Your task to perform on an android device: Go to Yahoo.com Image 0: 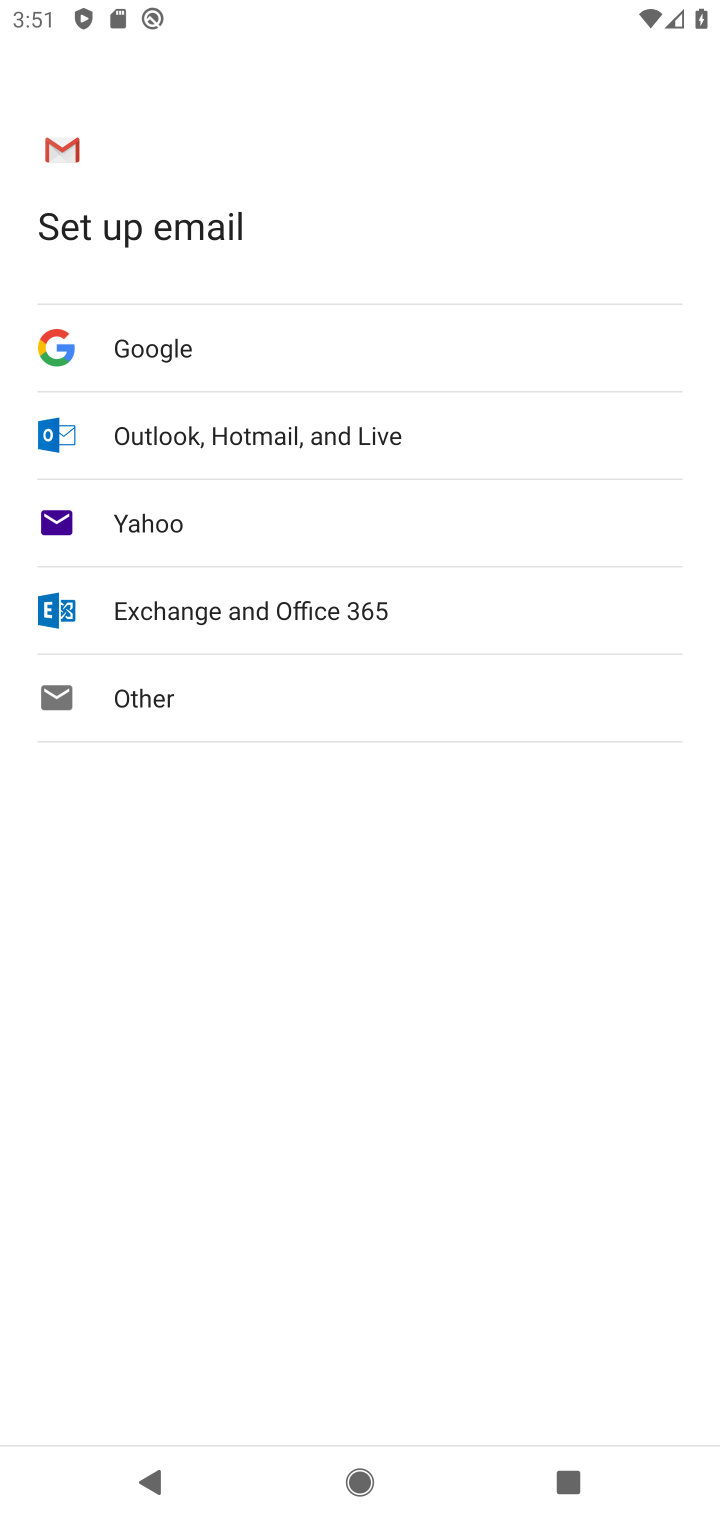
Step 0: press back button
Your task to perform on an android device: Go to Yahoo.com Image 1: 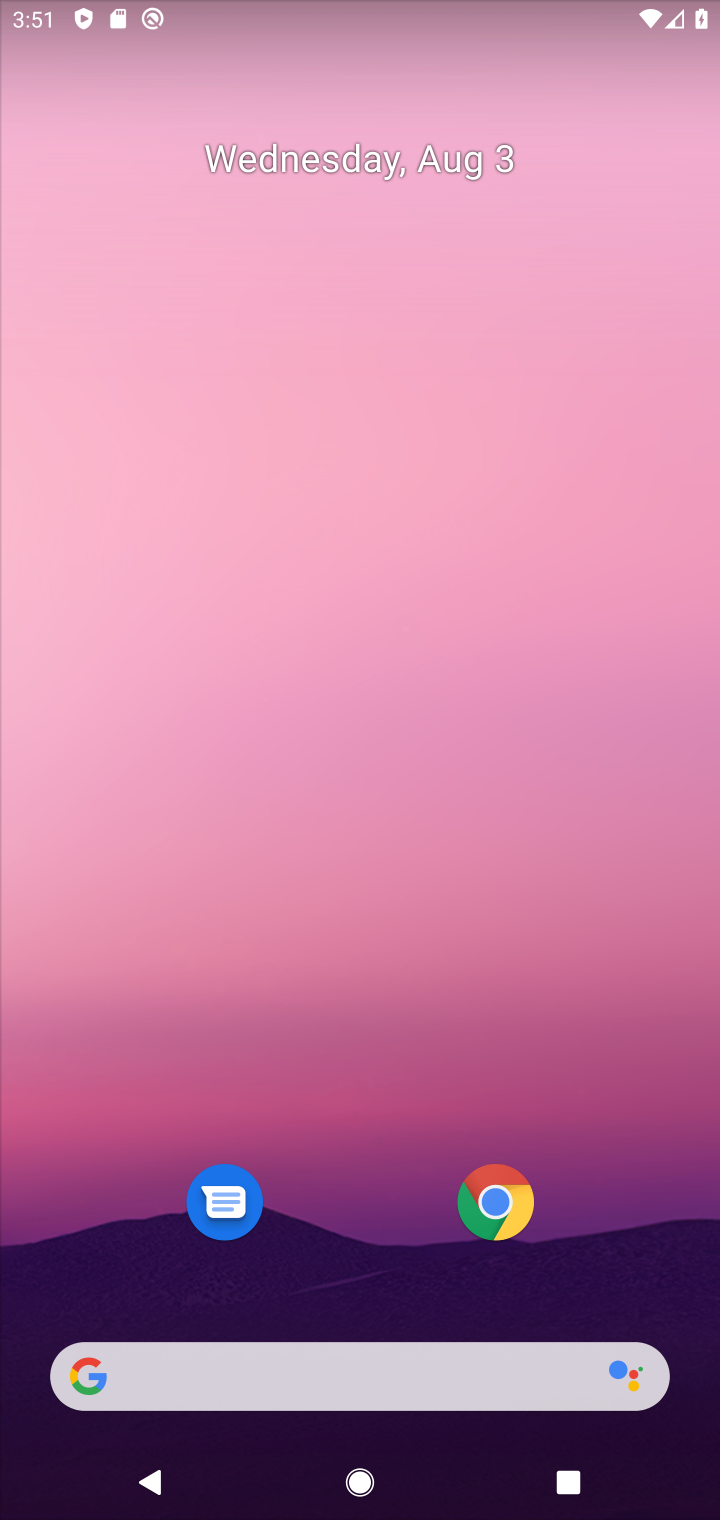
Step 1: click (515, 1192)
Your task to perform on an android device: Go to Yahoo.com Image 2: 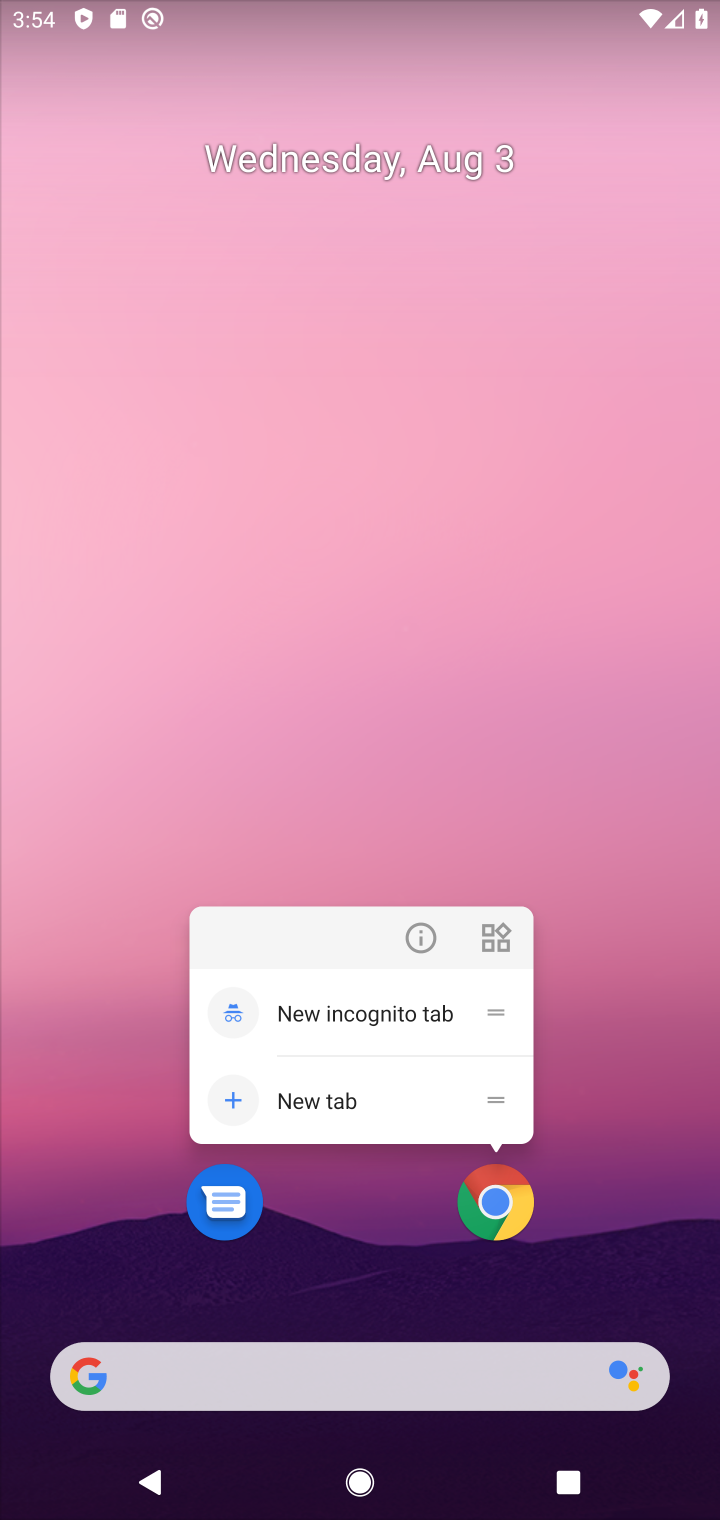
Step 2: click (500, 1199)
Your task to perform on an android device: Go to Yahoo.com Image 3: 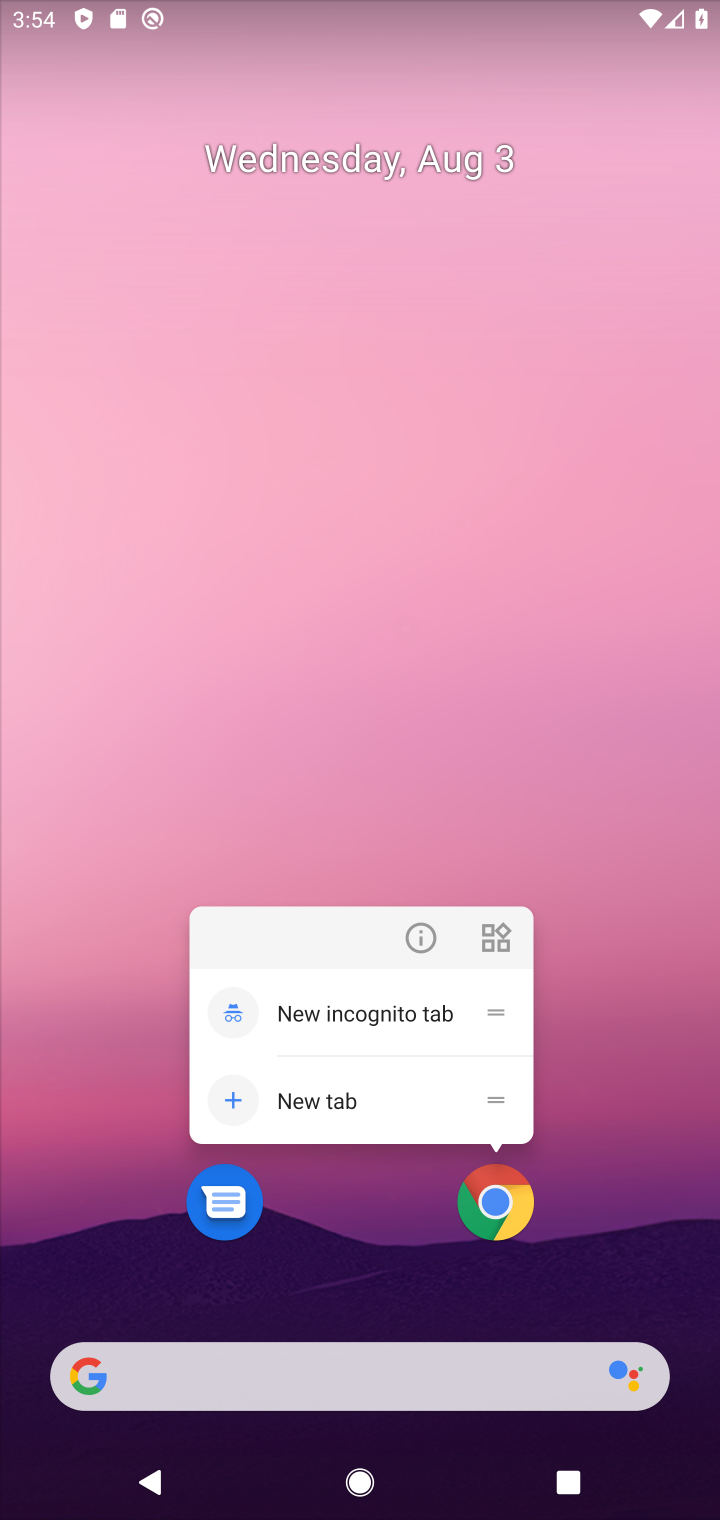
Step 3: click (492, 1204)
Your task to perform on an android device: Go to Yahoo.com Image 4: 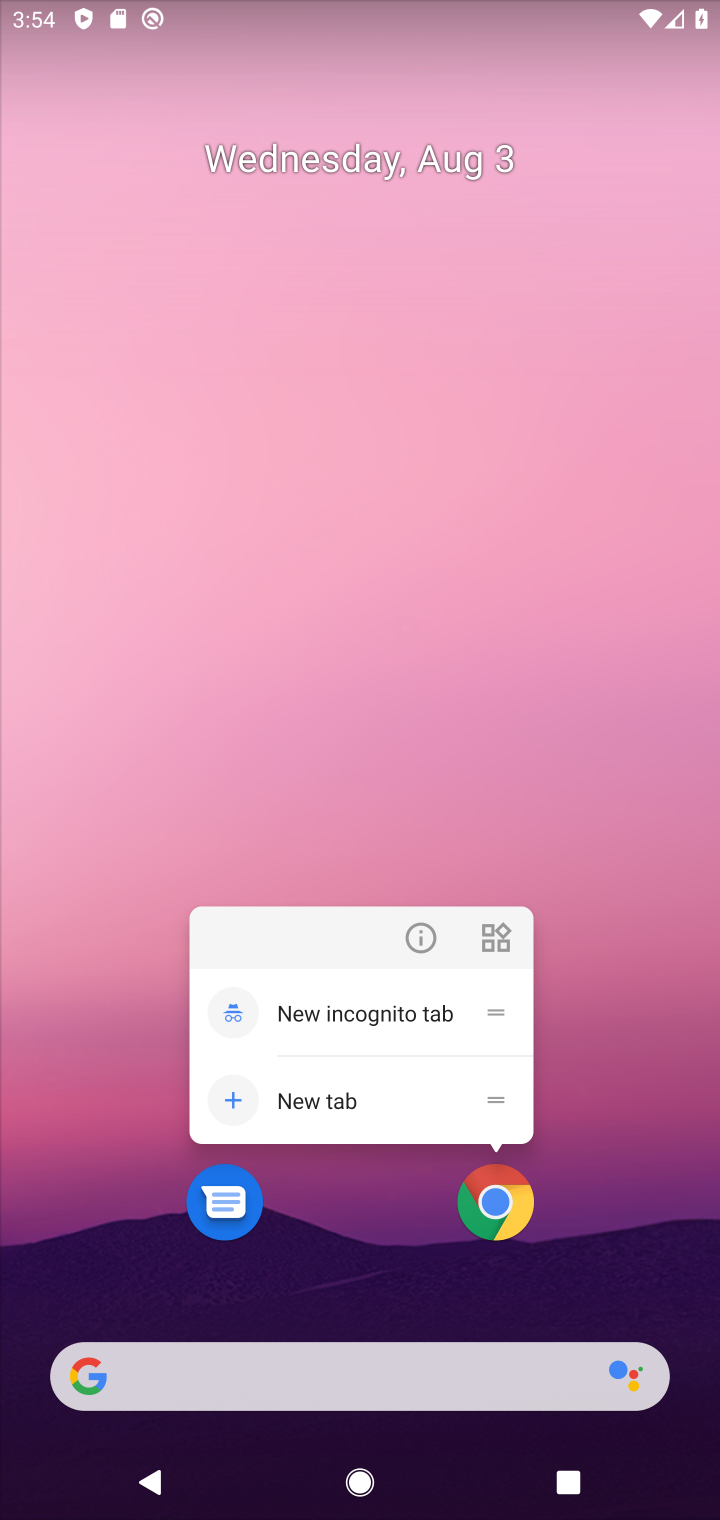
Step 4: click (506, 1197)
Your task to perform on an android device: Go to Yahoo.com Image 5: 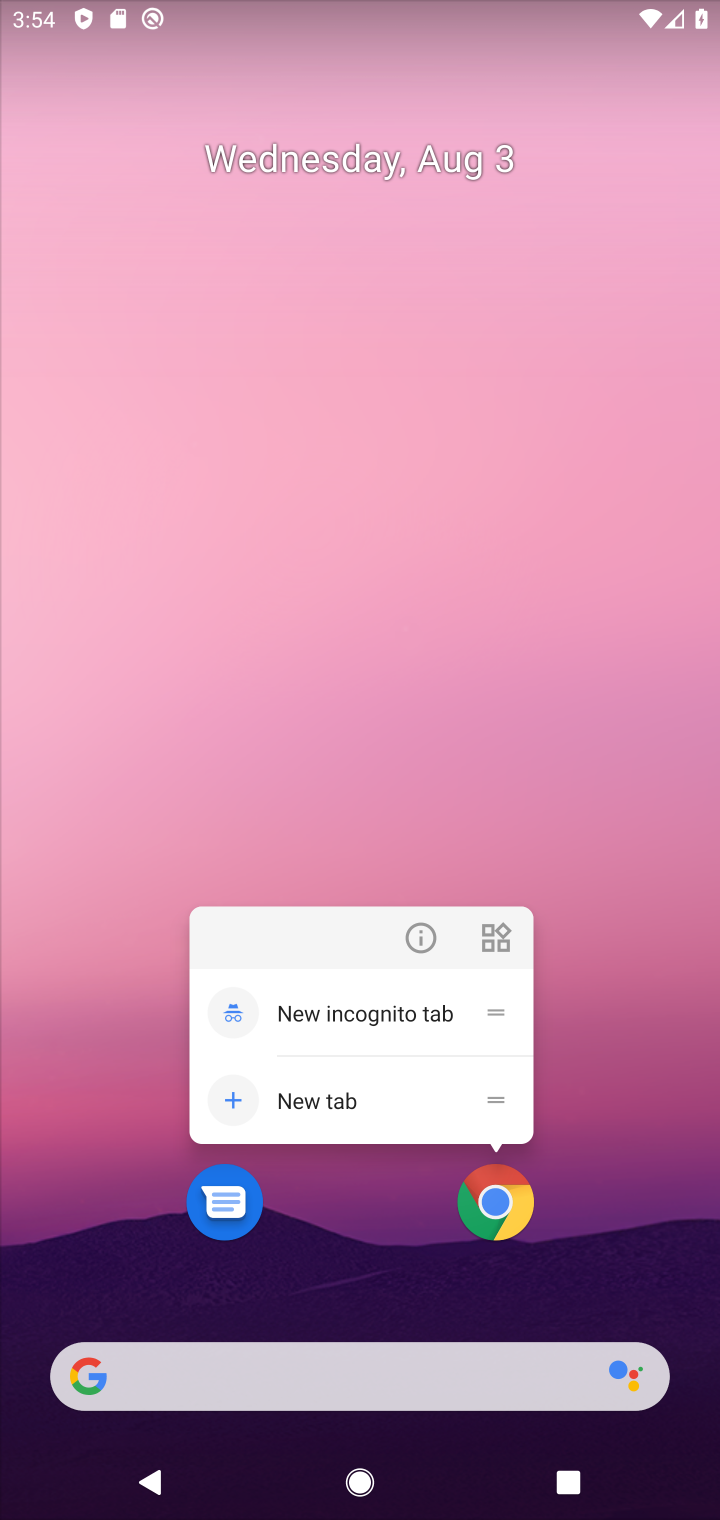
Step 5: click (523, 1205)
Your task to perform on an android device: Go to Yahoo.com Image 6: 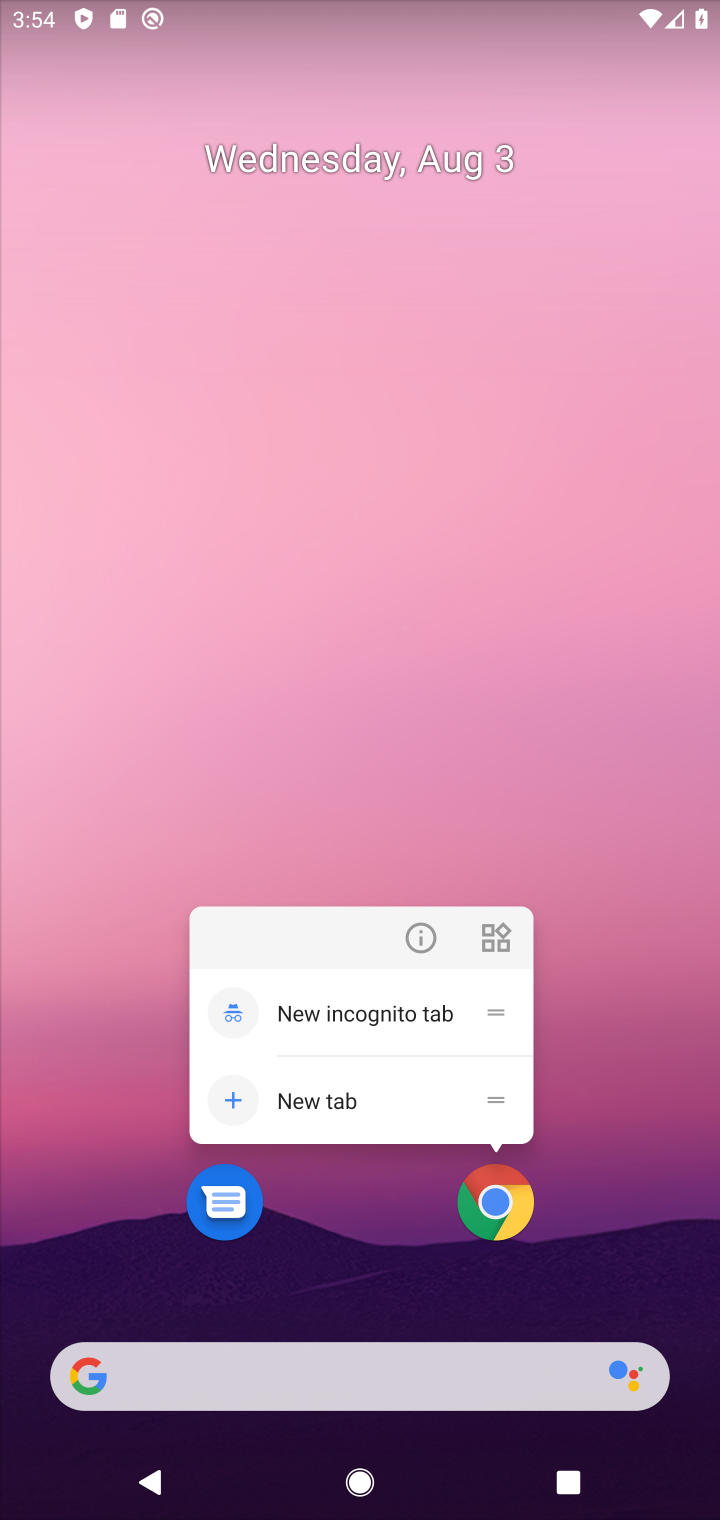
Step 6: click (505, 1214)
Your task to perform on an android device: Go to Yahoo.com Image 7: 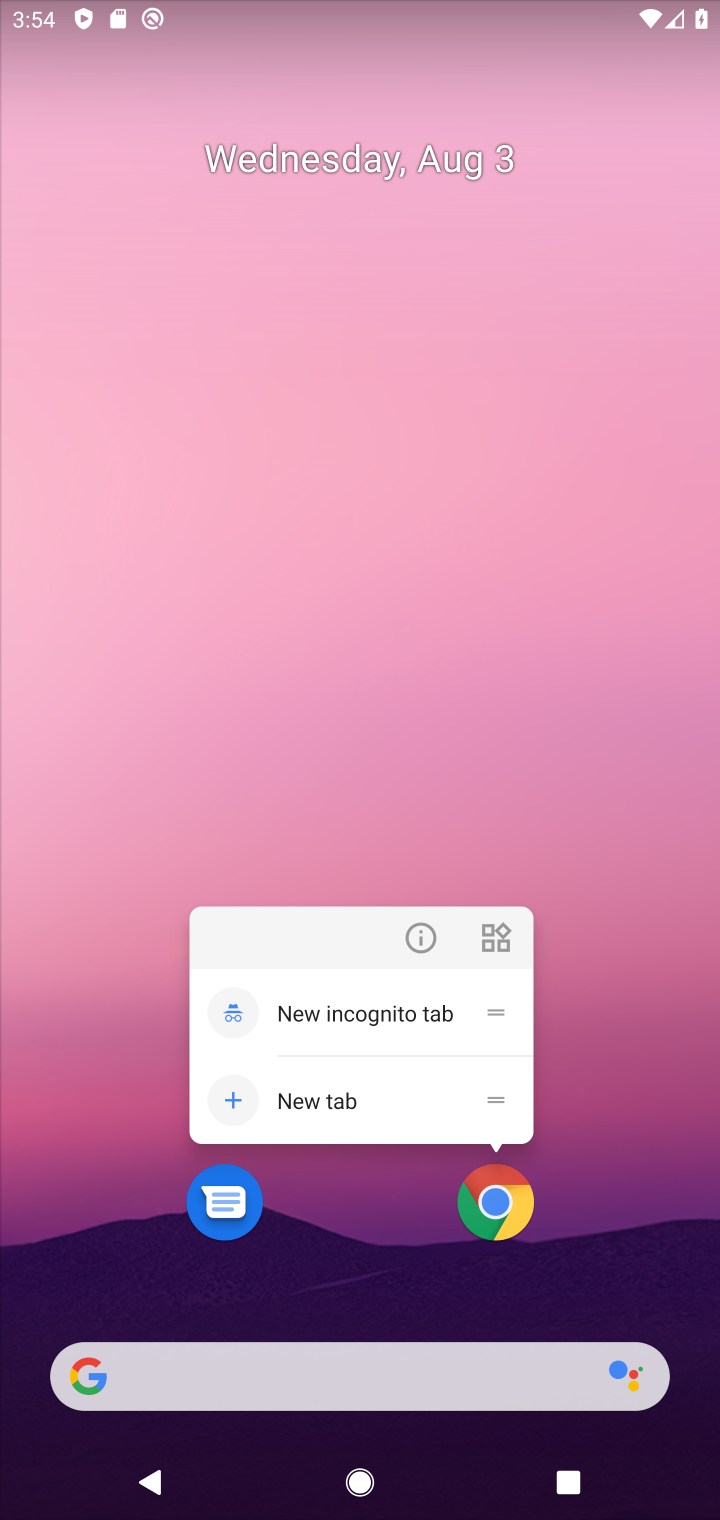
Step 7: click (505, 1214)
Your task to perform on an android device: Go to Yahoo.com Image 8: 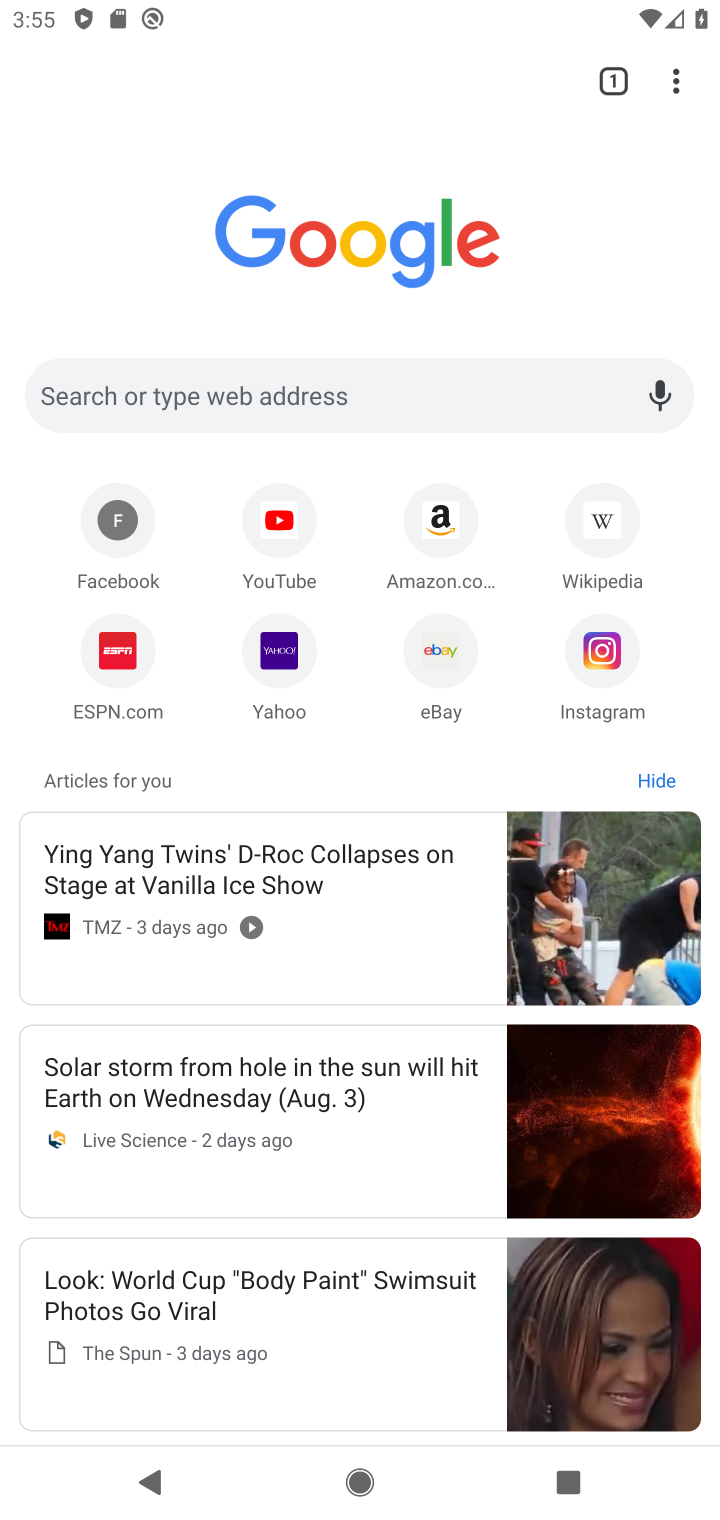
Step 8: click (514, 1209)
Your task to perform on an android device: Go to Yahoo.com Image 9: 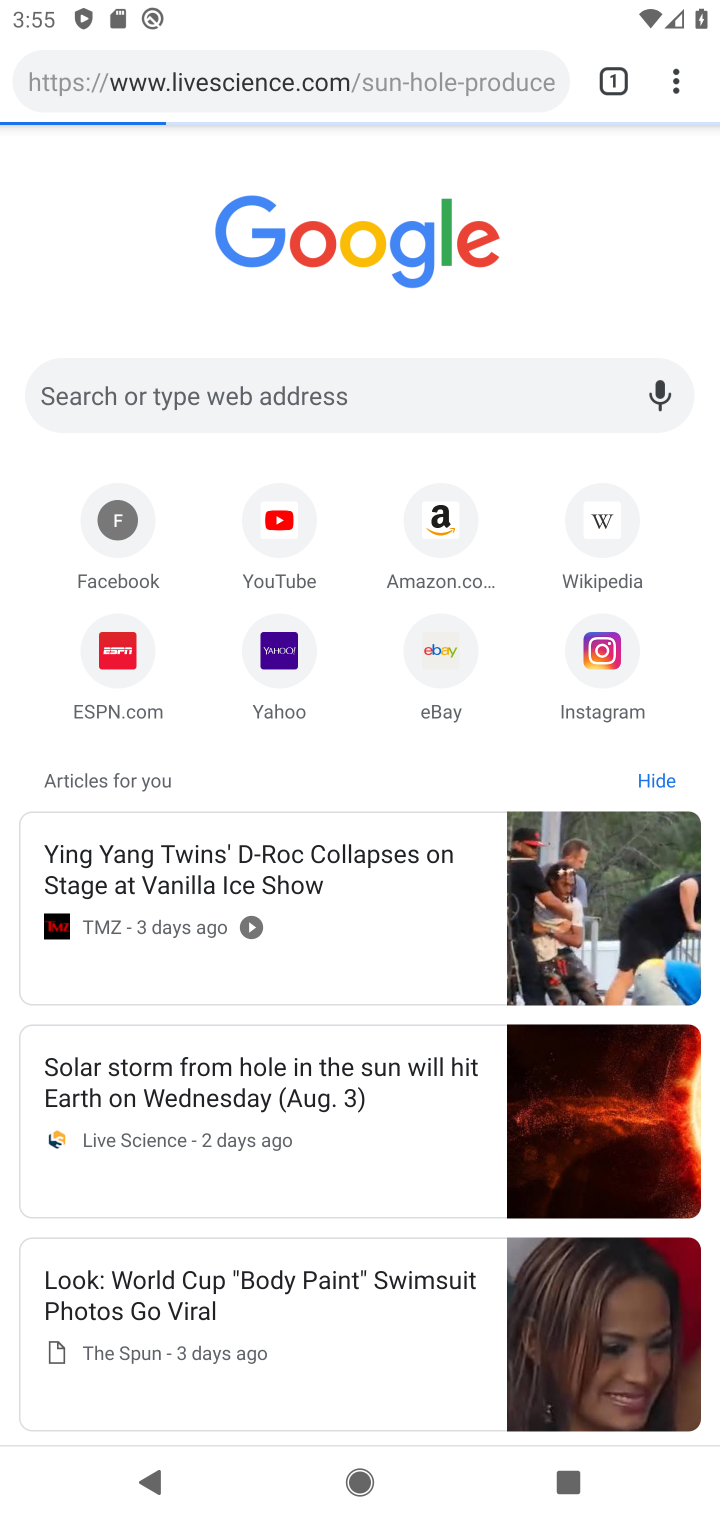
Step 9: click (270, 700)
Your task to perform on an android device: Go to Yahoo.com Image 10: 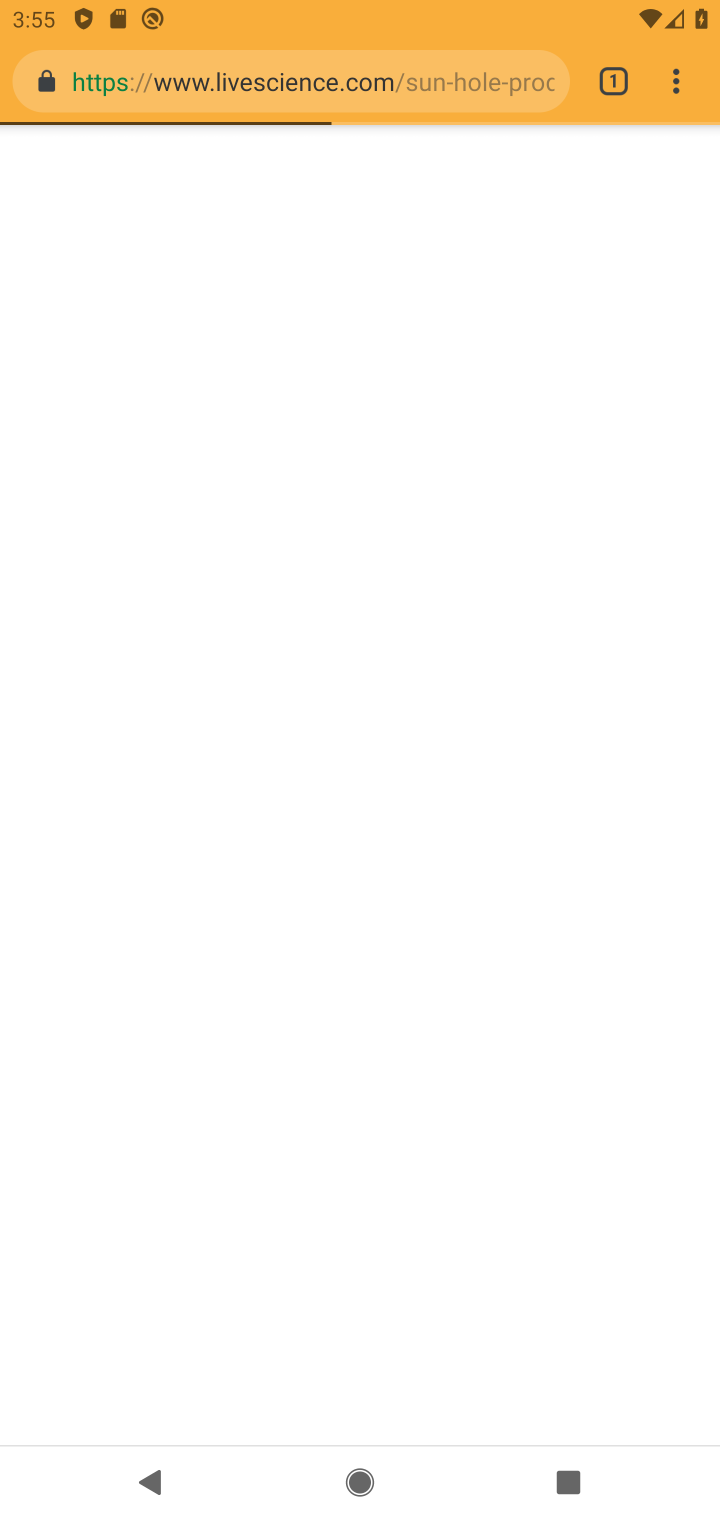
Step 10: click (635, 98)
Your task to perform on an android device: Go to Yahoo.com Image 11: 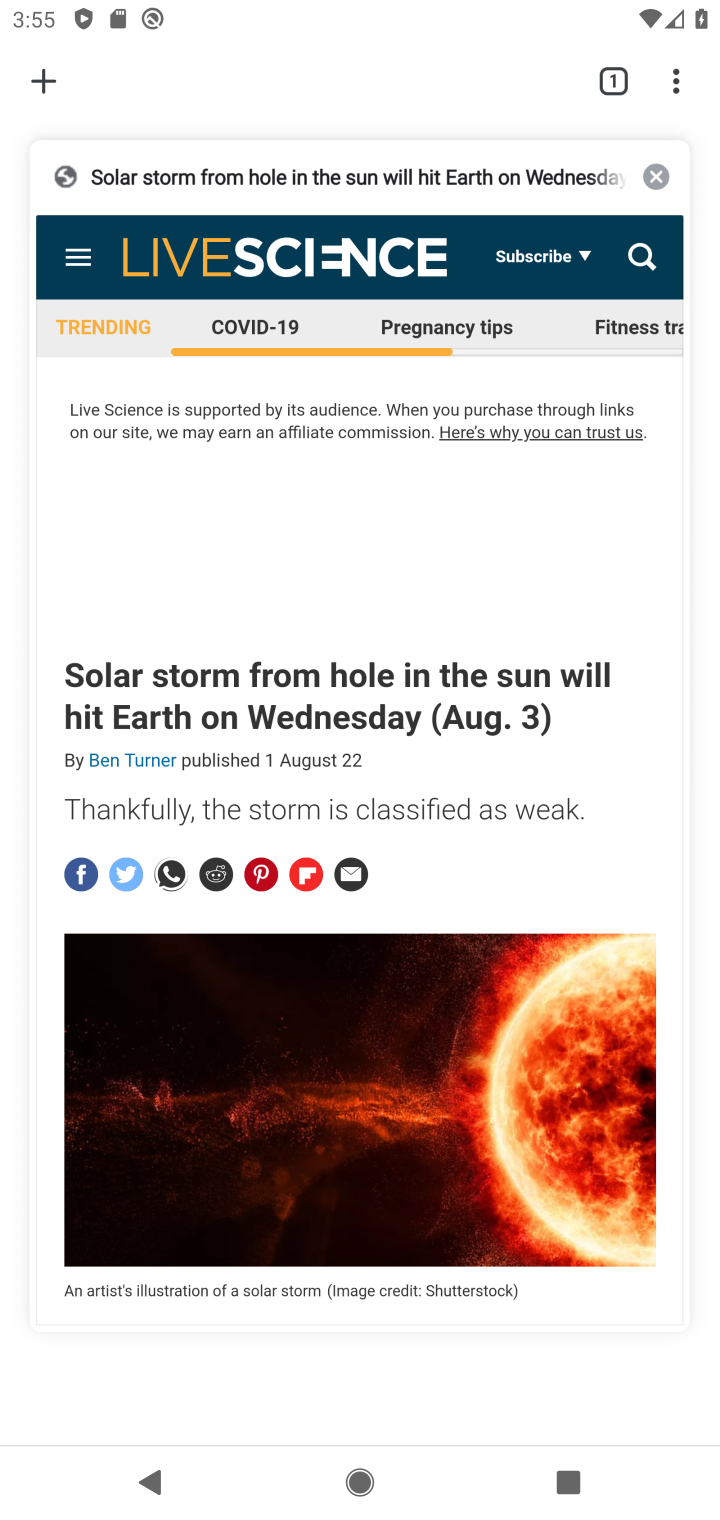
Step 11: click (45, 76)
Your task to perform on an android device: Go to Yahoo.com Image 12: 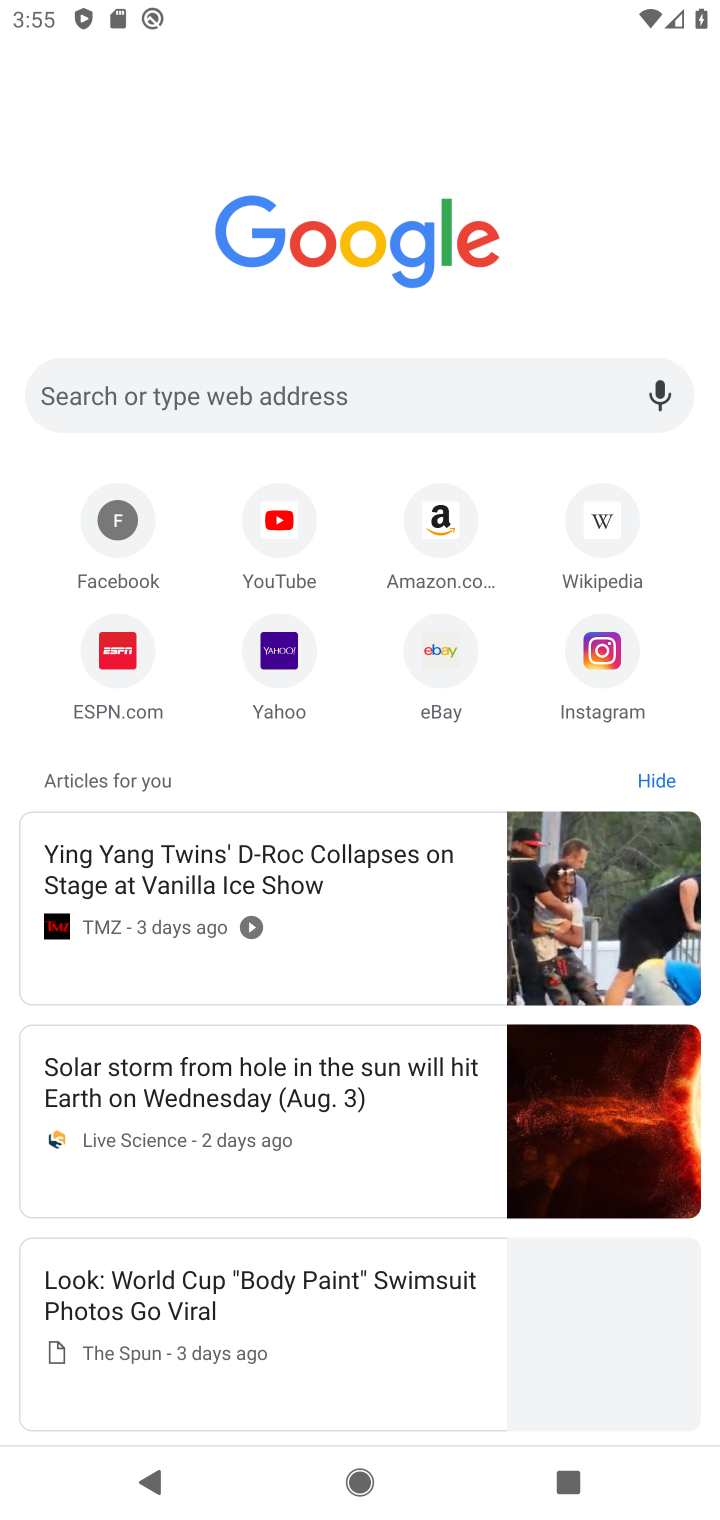
Step 12: click (290, 647)
Your task to perform on an android device: Go to Yahoo.com Image 13: 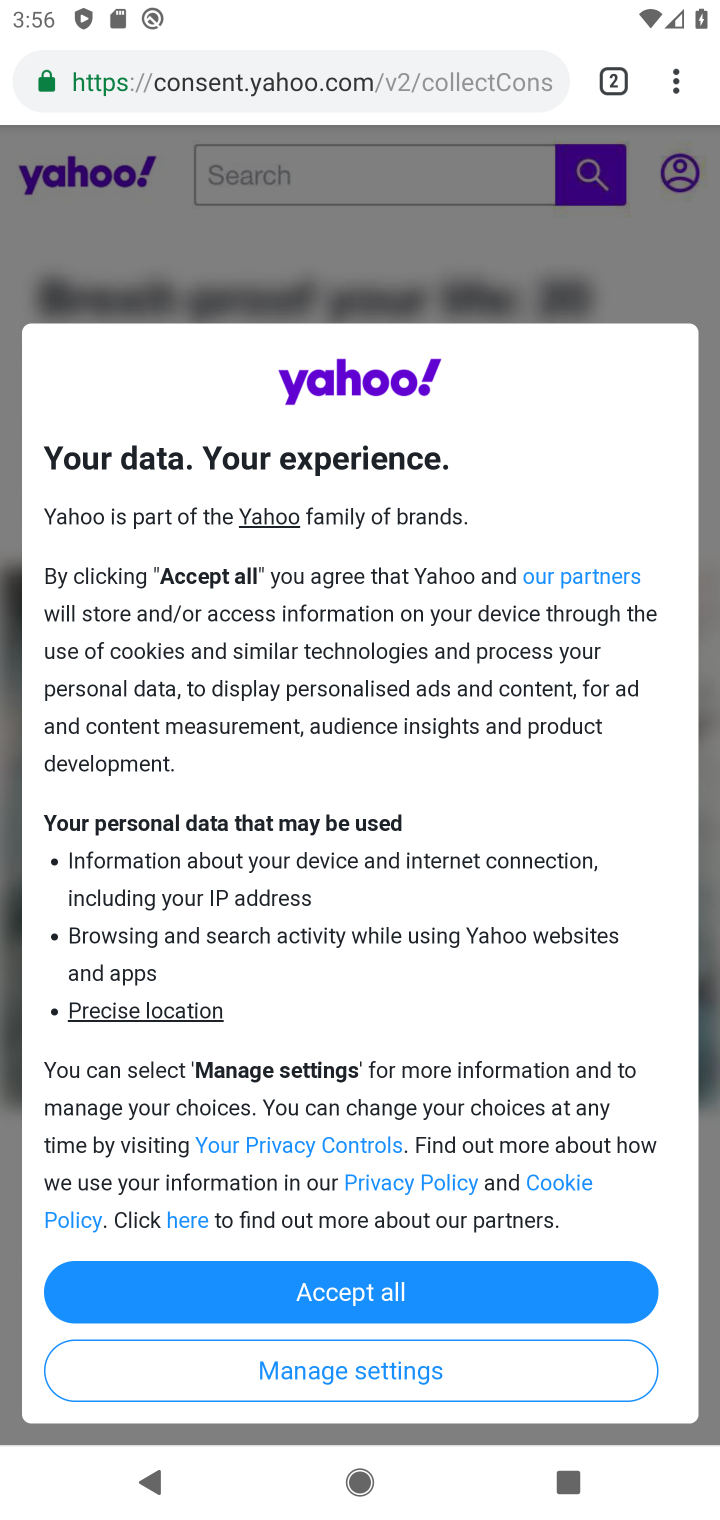
Step 13: task complete